Your task to perform on an android device: Clear all items from cart on costco.com. Search for "razer blade" on costco.com, select the first entry, and add it to the cart. Image 0: 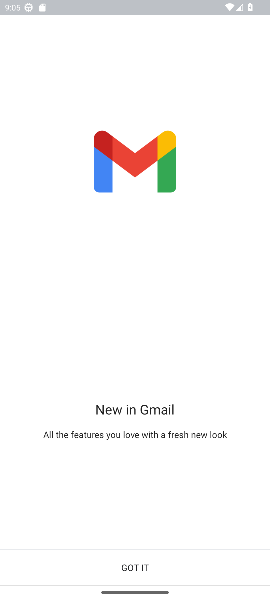
Step 0: press home button
Your task to perform on an android device: Clear all items from cart on costco.com. Search for "razer blade" on costco.com, select the first entry, and add it to the cart. Image 1: 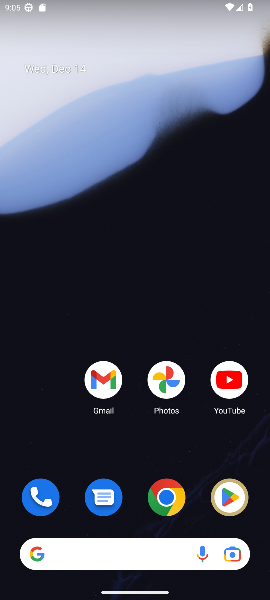
Step 1: click (167, 499)
Your task to perform on an android device: Clear all items from cart on costco.com. Search for "razer blade" on costco.com, select the first entry, and add it to the cart. Image 2: 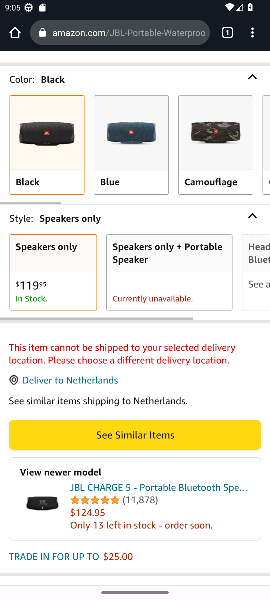
Step 2: click (121, 28)
Your task to perform on an android device: Clear all items from cart on costco.com. Search for "razer blade" on costco.com, select the first entry, and add it to the cart. Image 3: 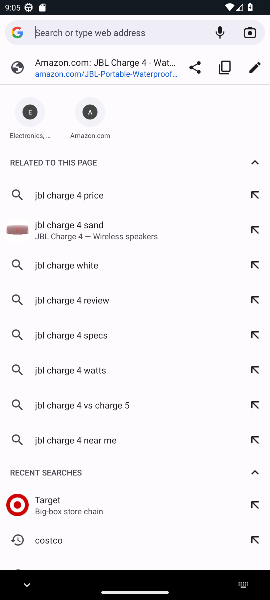
Step 3: press enter
Your task to perform on an android device: Clear all items from cart on costco.com. Search for "razer blade" on costco.com, select the first entry, and add it to the cart. Image 4: 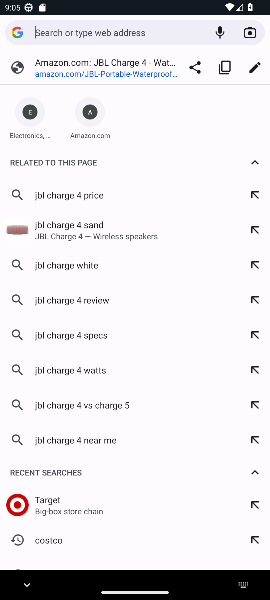
Step 4: type "costco.com"
Your task to perform on an android device: Clear all items from cart on costco.com. Search for "razer blade" on costco.com, select the first entry, and add it to the cart. Image 5: 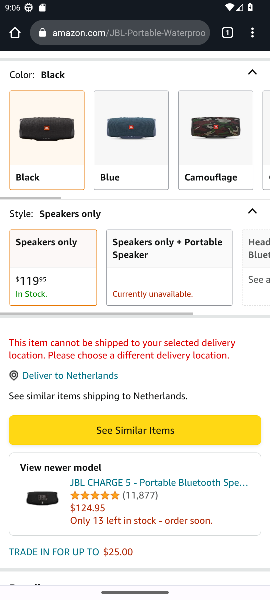
Step 5: click (115, 49)
Your task to perform on an android device: Clear all items from cart on costco.com. Search for "razer blade" on costco.com, select the first entry, and add it to the cart. Image 6: 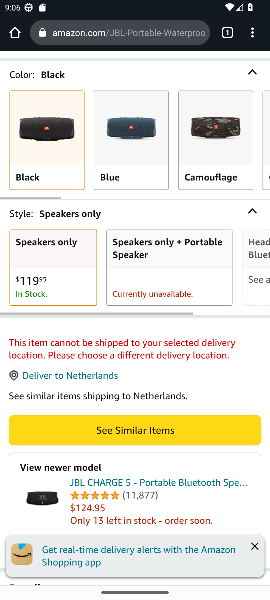
Step 6: click (112, 38)
Your task to perform on an android device: Clear all items from cart on costco.com. Search for "razer blade" on costco.com, select the first entry, and add it to the cart. Image 7: 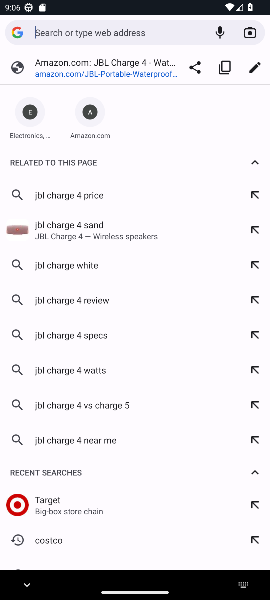
Step 7: type "costco.com"
Your task to perform on an android device: Clear all items from cart on costco.com. Search for "razer blade" on costco.com, select the first entry, and add it to the cart. Image 8: 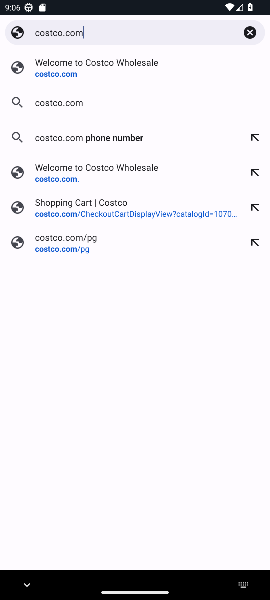
Step 8: press enter
Your task to perform on an android device: Clear all items from cart on costco.com. Search for "razer blade" on costco.com, select the first entry, and add it to the cart. Image 9: 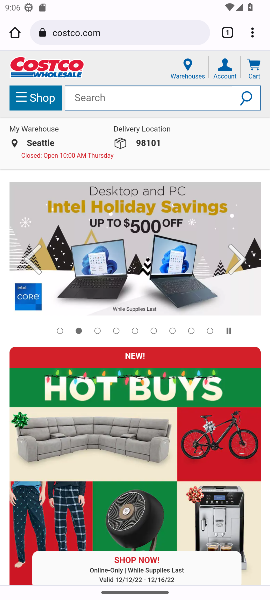
Step 9: click (120, 99)
Your task to perform on an android device: Clear all items from cart on costco.com. Search for "razer blade" on costco.com, select the first entry, and add it to the cart. Image 10: 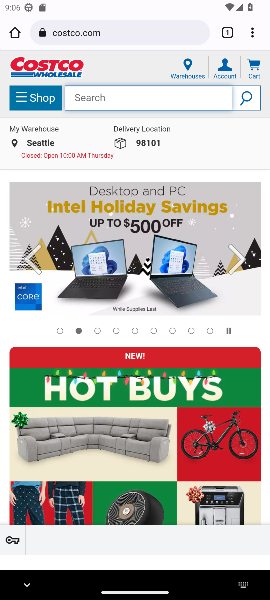
Step 10: click (120, 99)
Your task to perform on an android device: Clear all items from cart on costco.com. Search for "razer blade" on costco.com, select the first entry, and add it to the cart. Image 11: 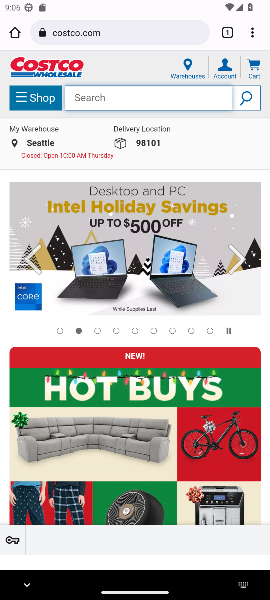
Step 11: click (120, 99)
Your task to perform on an android device: Clear all items from cart on costco.com. Search for "razer blade" on costco.com, select the first entry, and add it to the cart. Image 12: 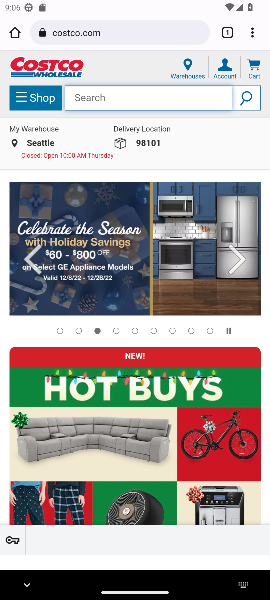
Step 12: click (120, 99)
Your task to perform on an android device: Clear all items from cart on costco.com. Search for "razer blade" on costco.com, select the first entry, and add it to the cart. Image 13: 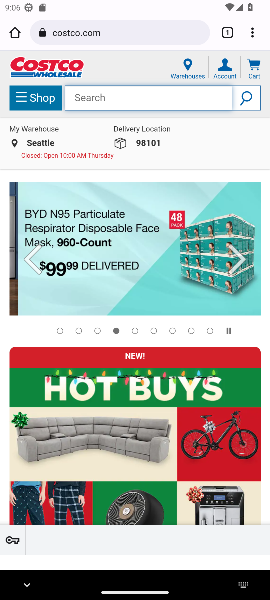
Step 13: type "razer blade"
Your task to perform on an android device: Clear all items from cart on costco.com. Search for "razer blade" on costco.com, select the first entry, and add it to the cart. Image 14: 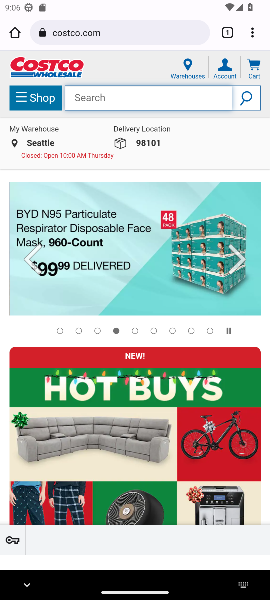
Step 14: click (115, 98)
Your task to perform on an android device: Clear all items from cart on costco.com. Search for "razer blade" on costco.com, select the first entry, and add it to the cart. Image 15: 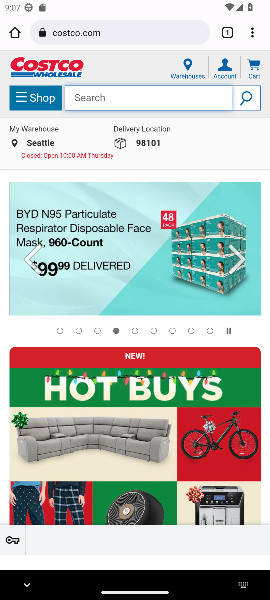
Step 15: click (115, 98)
Your task to perform on an android device: Clear all items from cart on costco.com. Search for "razer blade" on costco.com, select the first entry, and add it to the cart. Image 16: 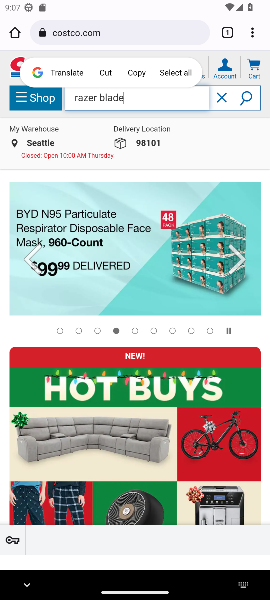
Step 16: click (243, 100)
Your task to perform on an android device: Clear all items from cart on costco.com. Search for "razer blade" on costco.com, select the first entry, and add it to the cart. Image 17: 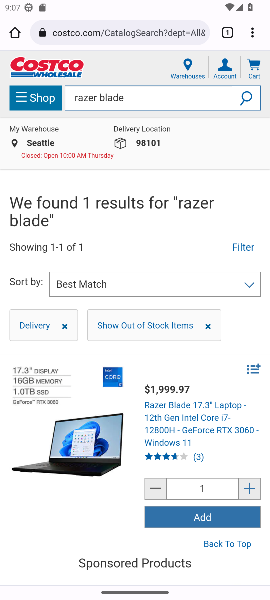
Step 17: click (196, 518)
Your task to perform on an android device: Clear all items from cart on costco.com. Search for "razer blade" on costco.com, select the first entry, and add it to the cart. Image 18: 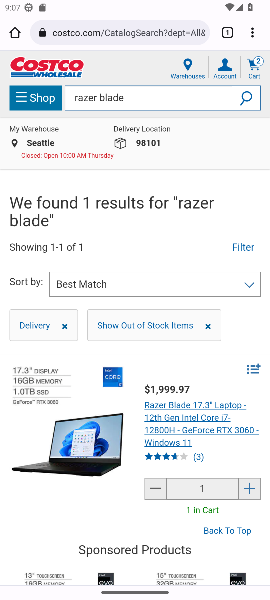
Step 18: task complete